Your task to perform on an android device: open a bookmark in the chrome app Image 0: 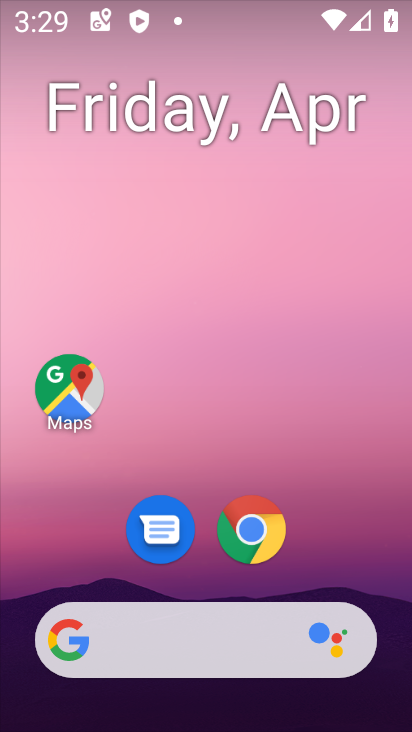
Step 0: click (264, 538)
Your task to perform on an android device: open a bookmark in the chrome app Image 1: 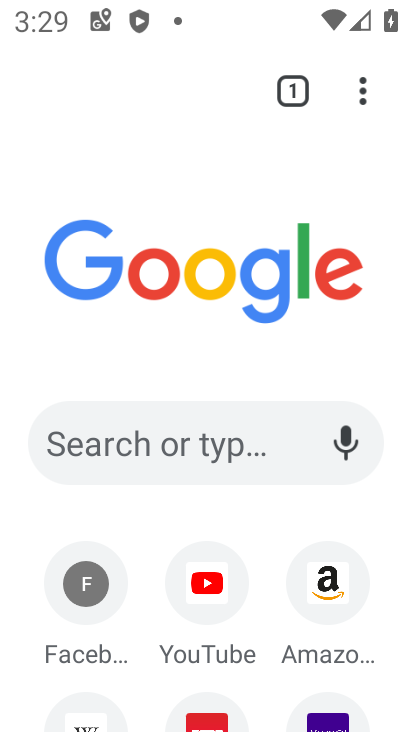
Step 1: click (368, 83)
Your task to perform on an android device: open a bookmark in the chrome app Image 2: 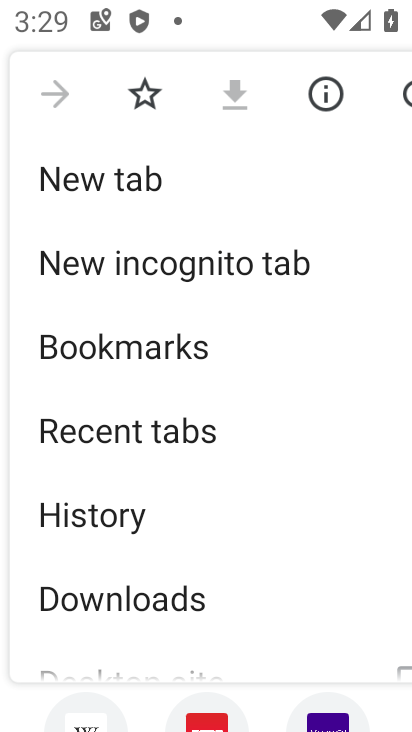
Step 2: click (273, 352)
Your task to perform on an android device: open a bookmark in the chrome app Image 3: 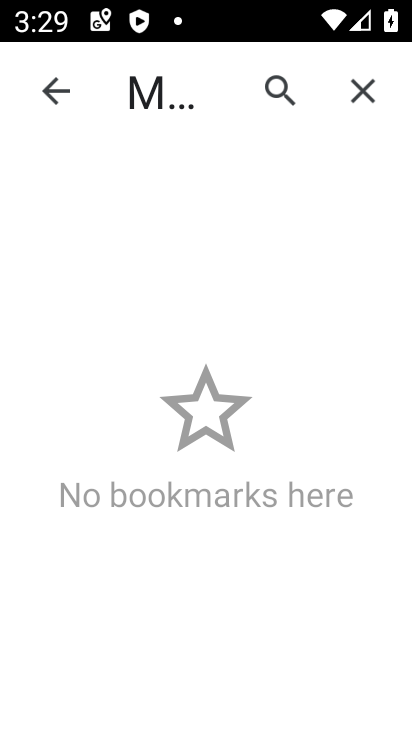
Step 3: task complete